Your task to perform on an android device: Search for "usb-c to usb-a" on target, select the first entry, and add it to the cart. Image 0: 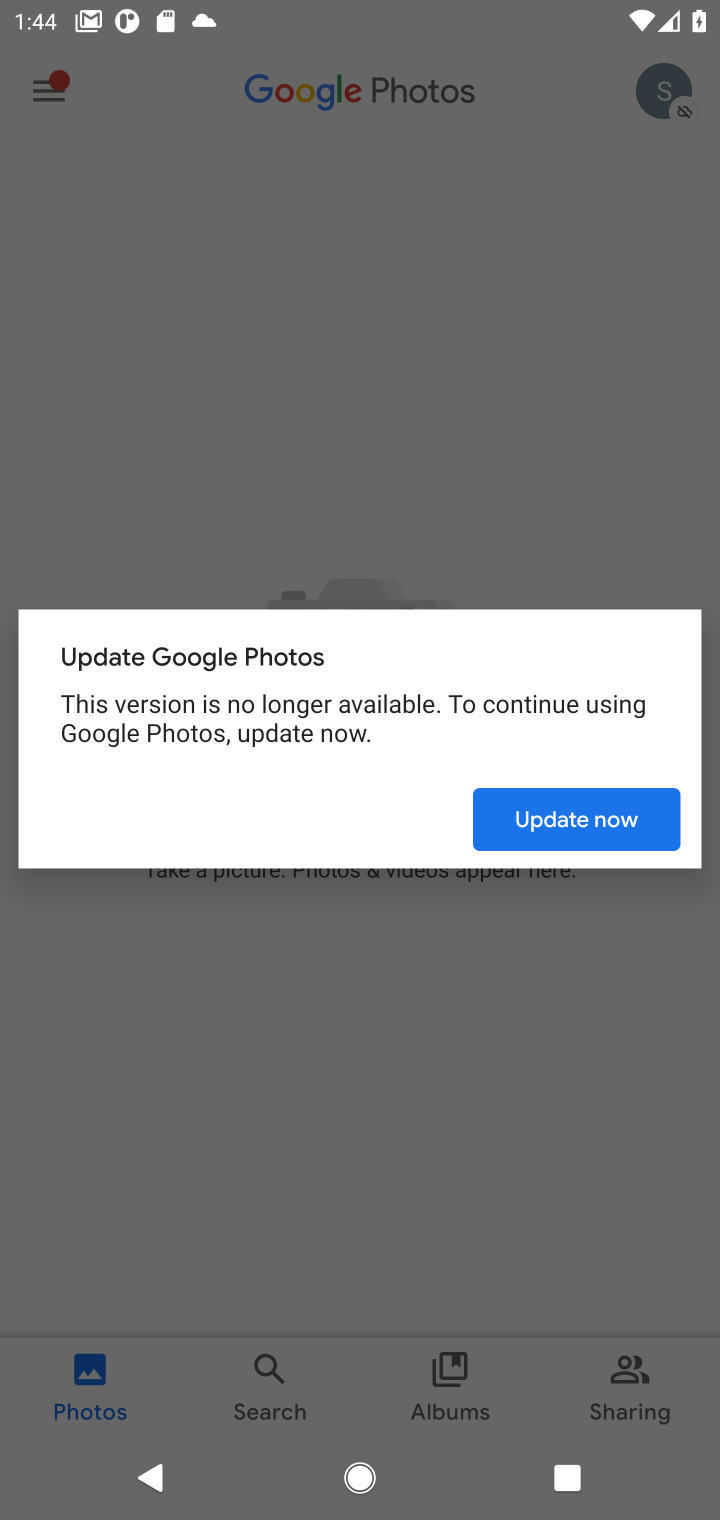
Step 0: press home button
Your task to perform on an android device: Search for "usb-c to usb-a" on target, select the first entry, and add it to the cart. Image 1: 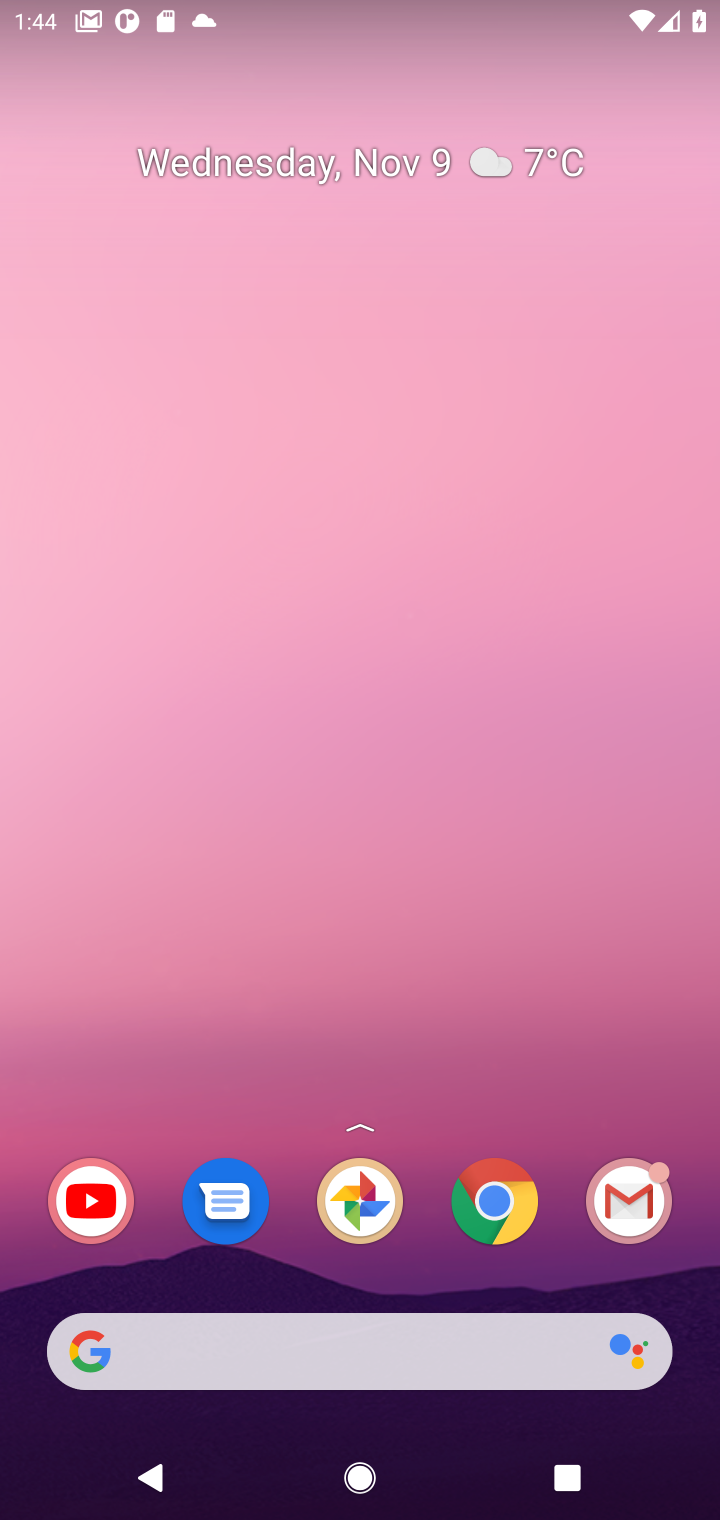
Step 1: click (354, 1340)
Your task to perform on an android device: Search for "usb-c to usb-a" on target, select the first entry, and add it to the cart. Image 2: 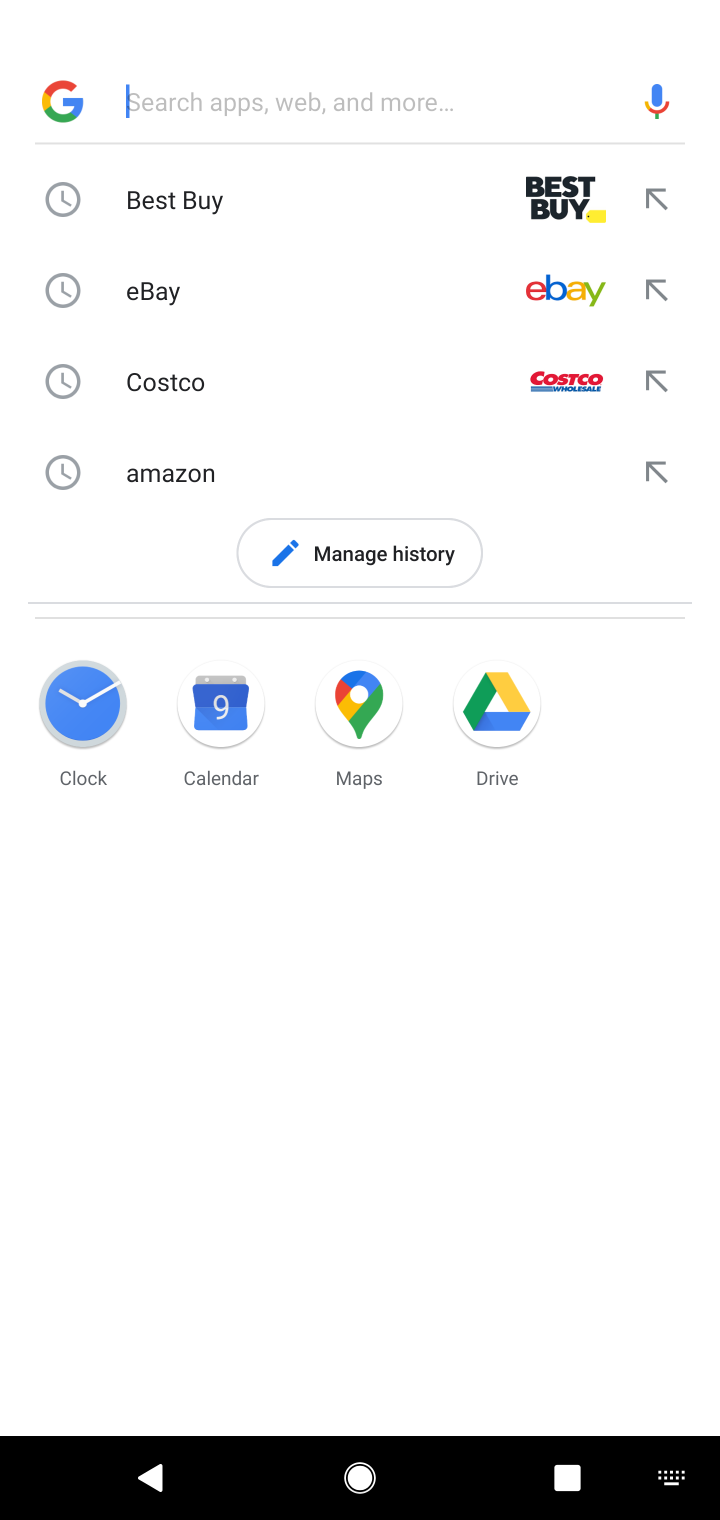
Step 2: type "target"
Your task to perform on an android device: Search for "usb-c to usb-a" on target, select the first entry, and add it to the cart. Image 3: 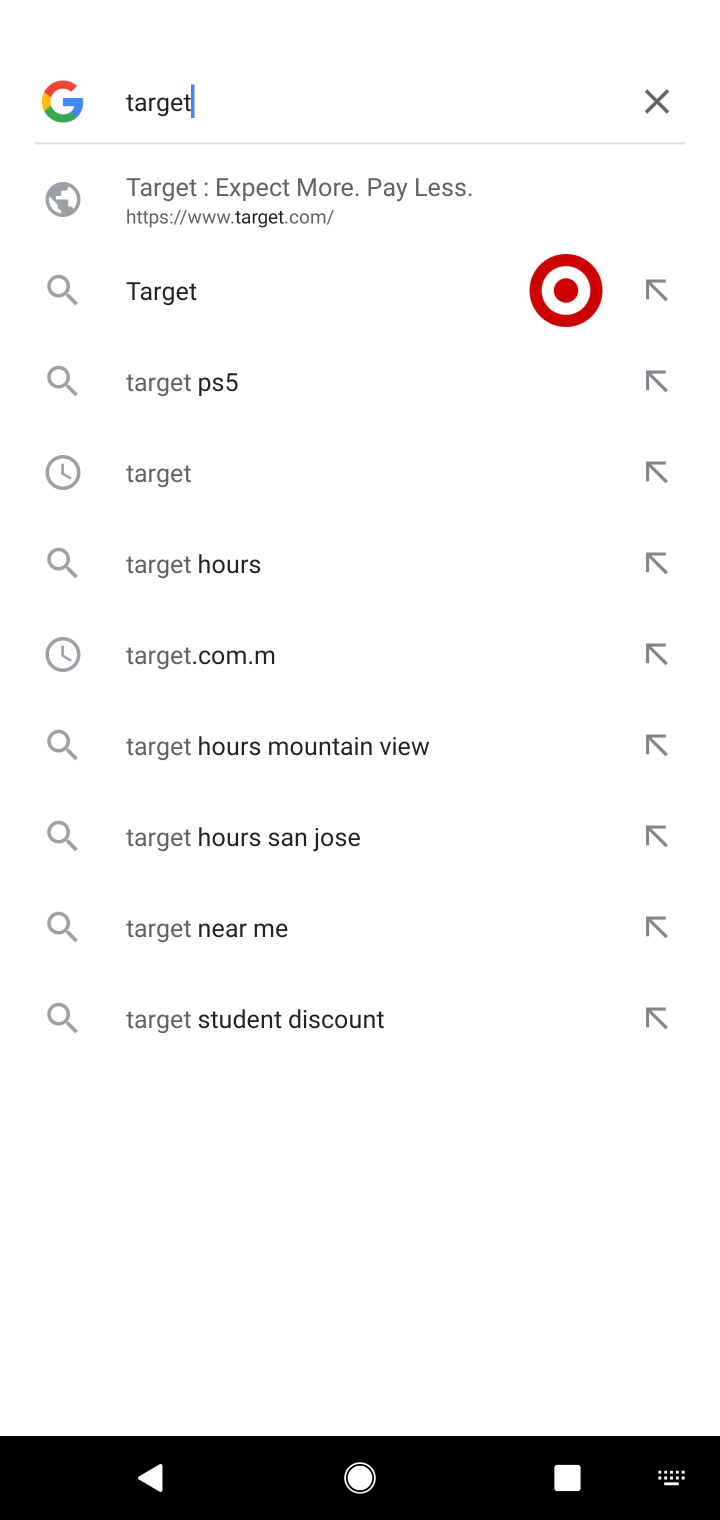
Step 3: click (382, 293)
Your task to perform on an android device: Search for "usb-c to usb-a" on target, select the first entry, and add it to the cart. Image 4: 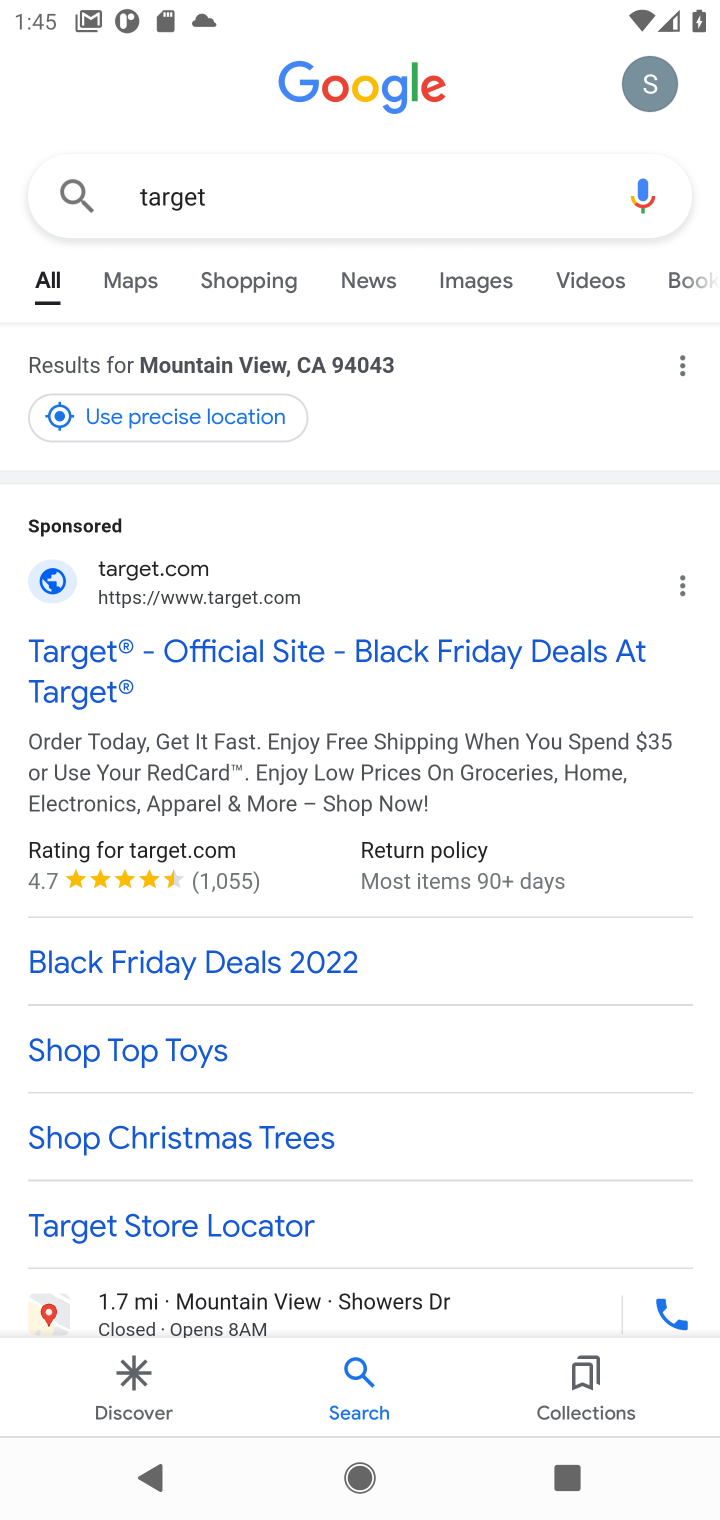
Step 4: click (155, 581)
Your task to perform on an android device: Search for "usb-c to usb-a" on target, select the first entry, and add it to the cart. Image 5: 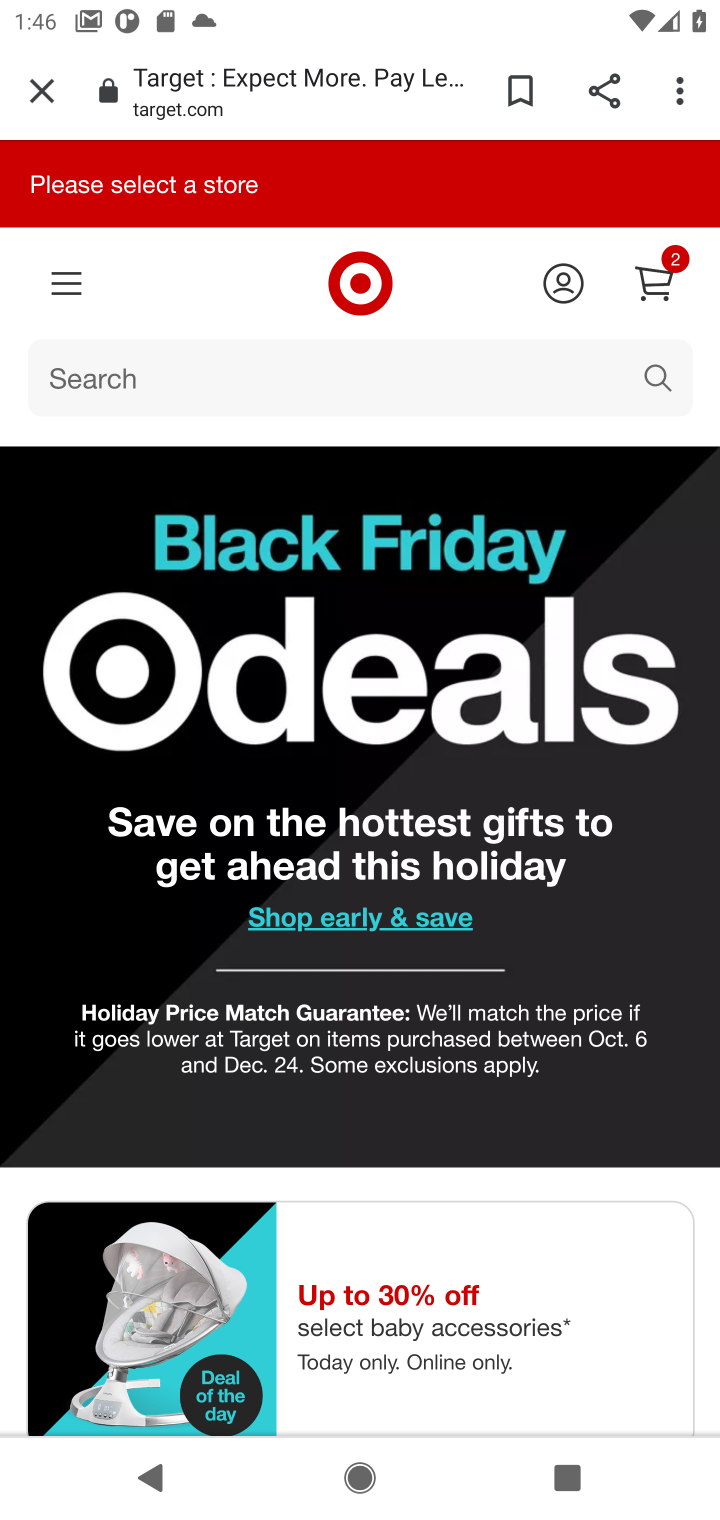
Step 5: click (233, 374)
Your task to perform on an android device: Search for "usb-c to usb-a" on target, select the first entry, and add it to the cart. Image 6: 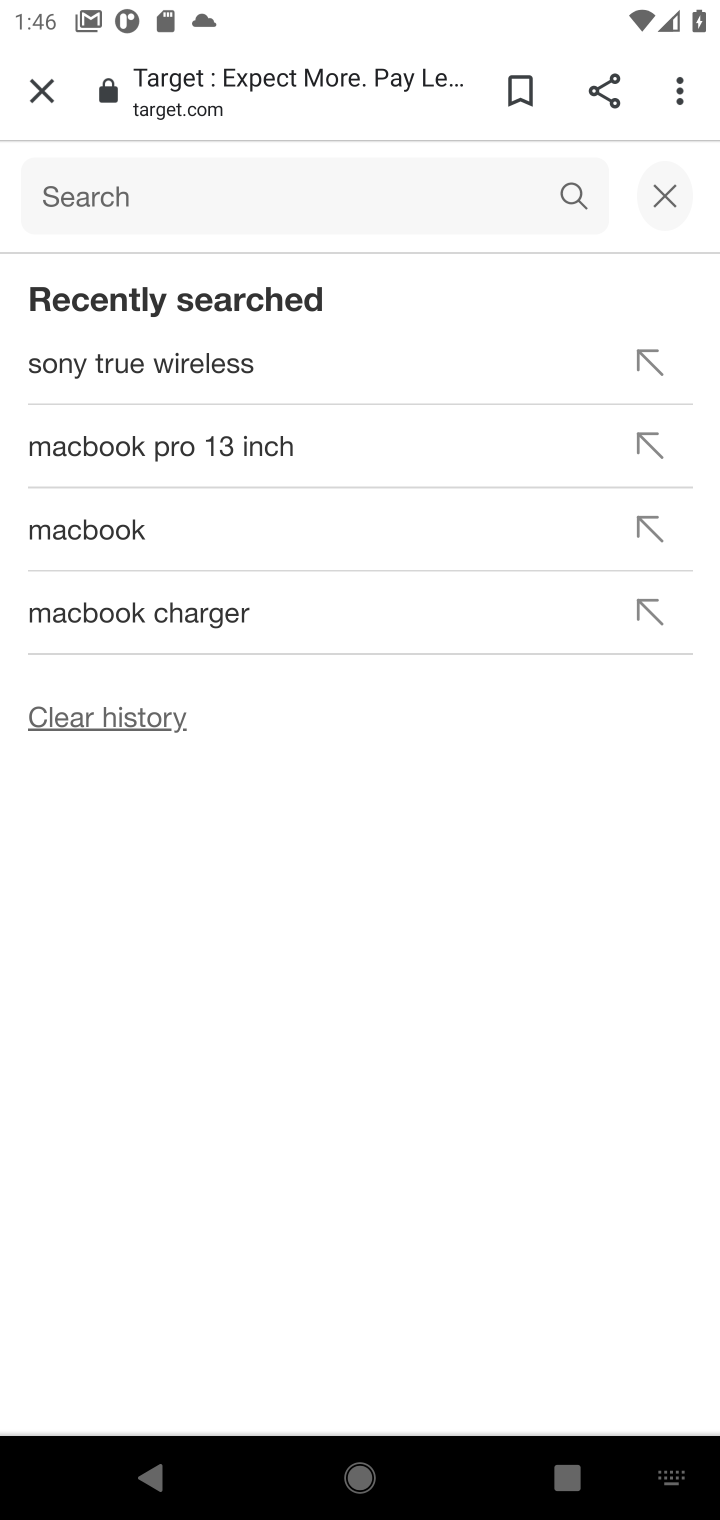
Step 6: type "usb-c to usb-a"
Your task to perform on an android device: Search for "usb-c to usb-a" on target, select the first entry, and add it to the cart. Image 7: 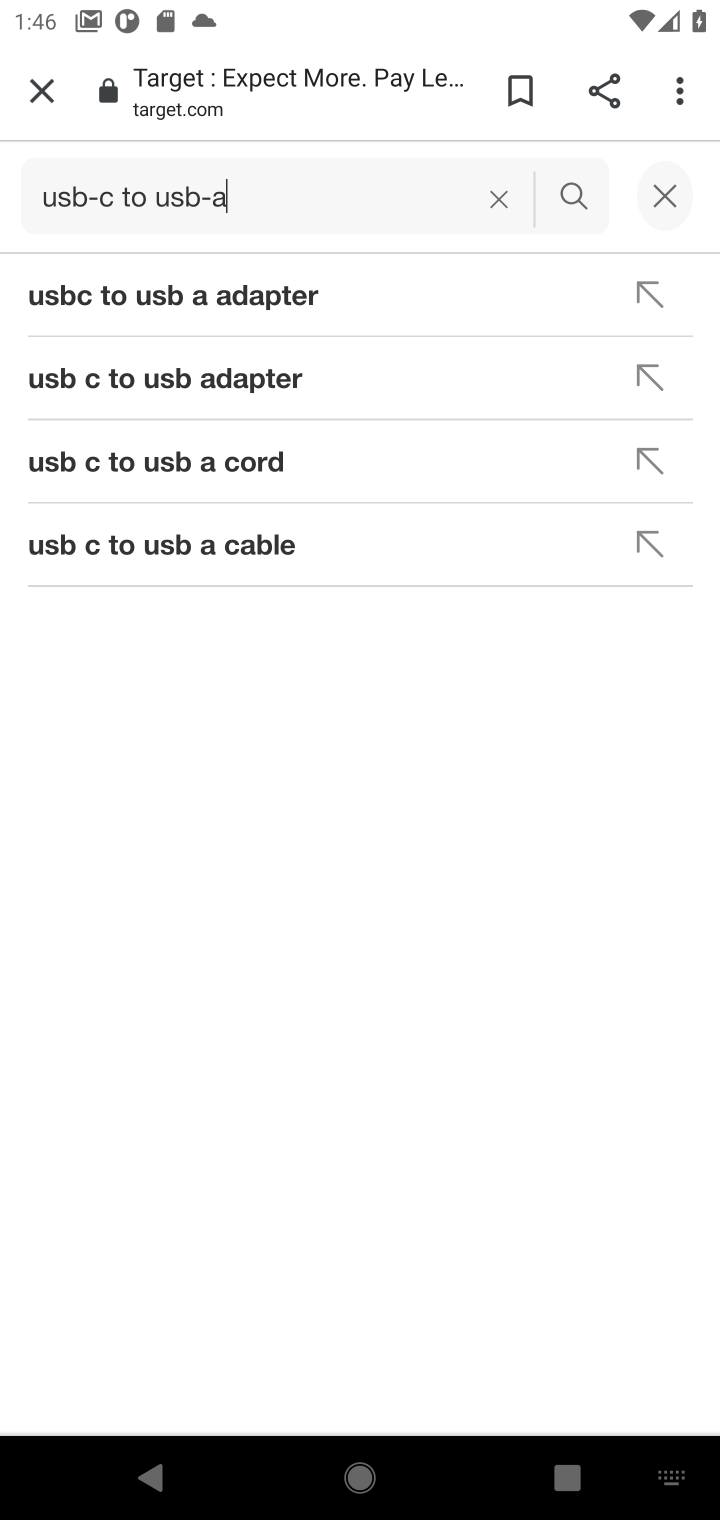
Step 7: click (186, 542)
Your task to perform on an android device: Search for "usb-c to usb-a" on target, select the first entry, and add it to the cart. Image 8: 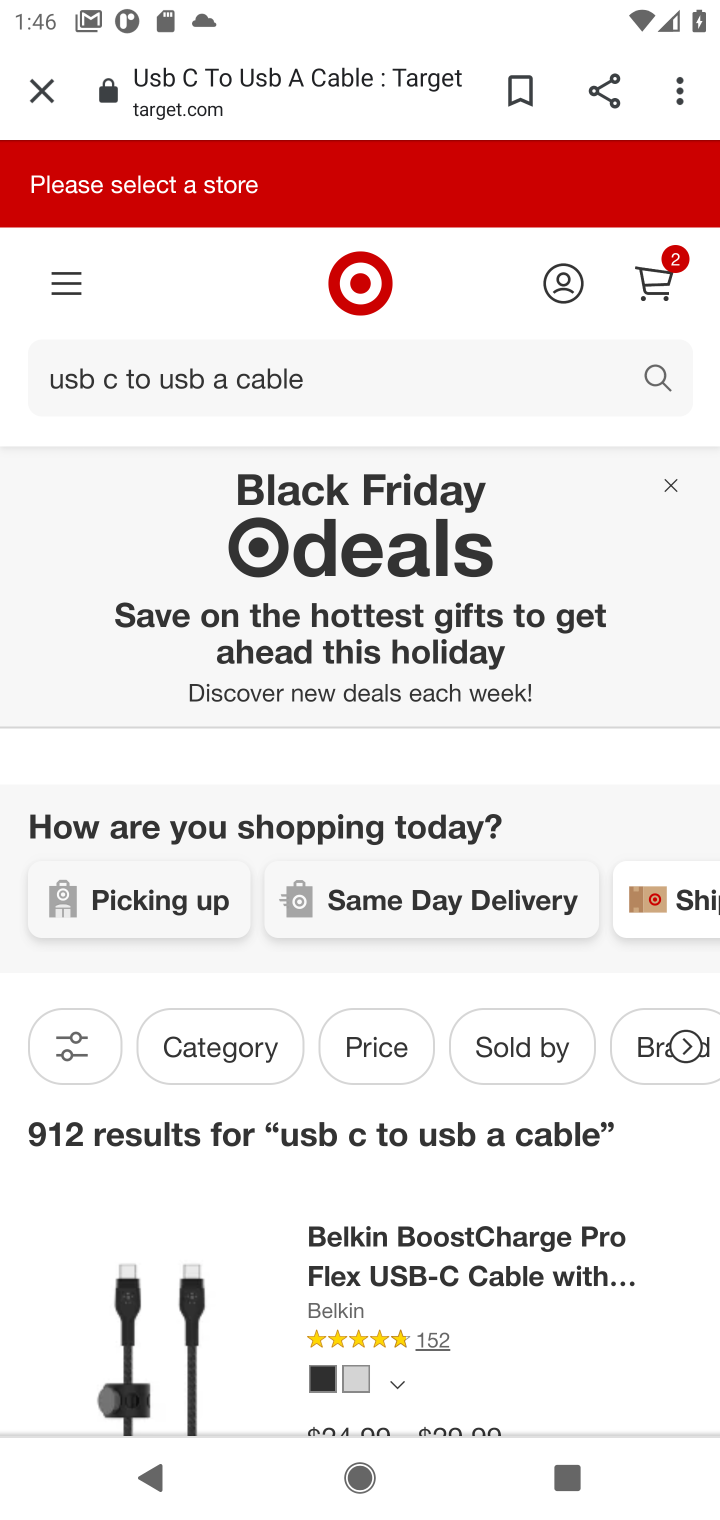
Step 8: drag from (467, 1197) to (414, 829)
Your task to perform on an android device: Search for "usb-c to usb-a" on target, select the first entry, and add it to the cart. Image 9: 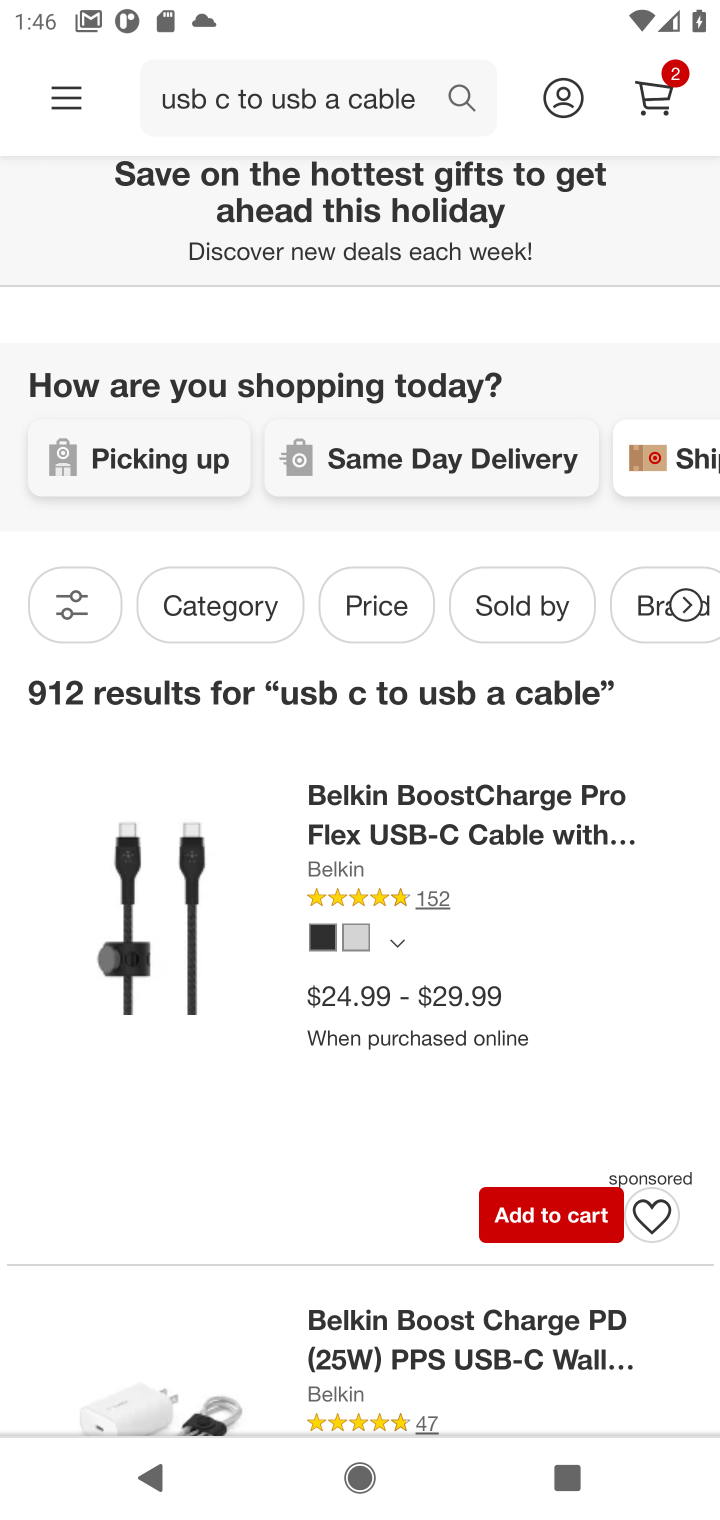
Step 9: click (536, 1217)
Your task to perform on an android device: Search for "usb-c to usb-a" on target, select the first entry, and add it to the cart. Image 10: 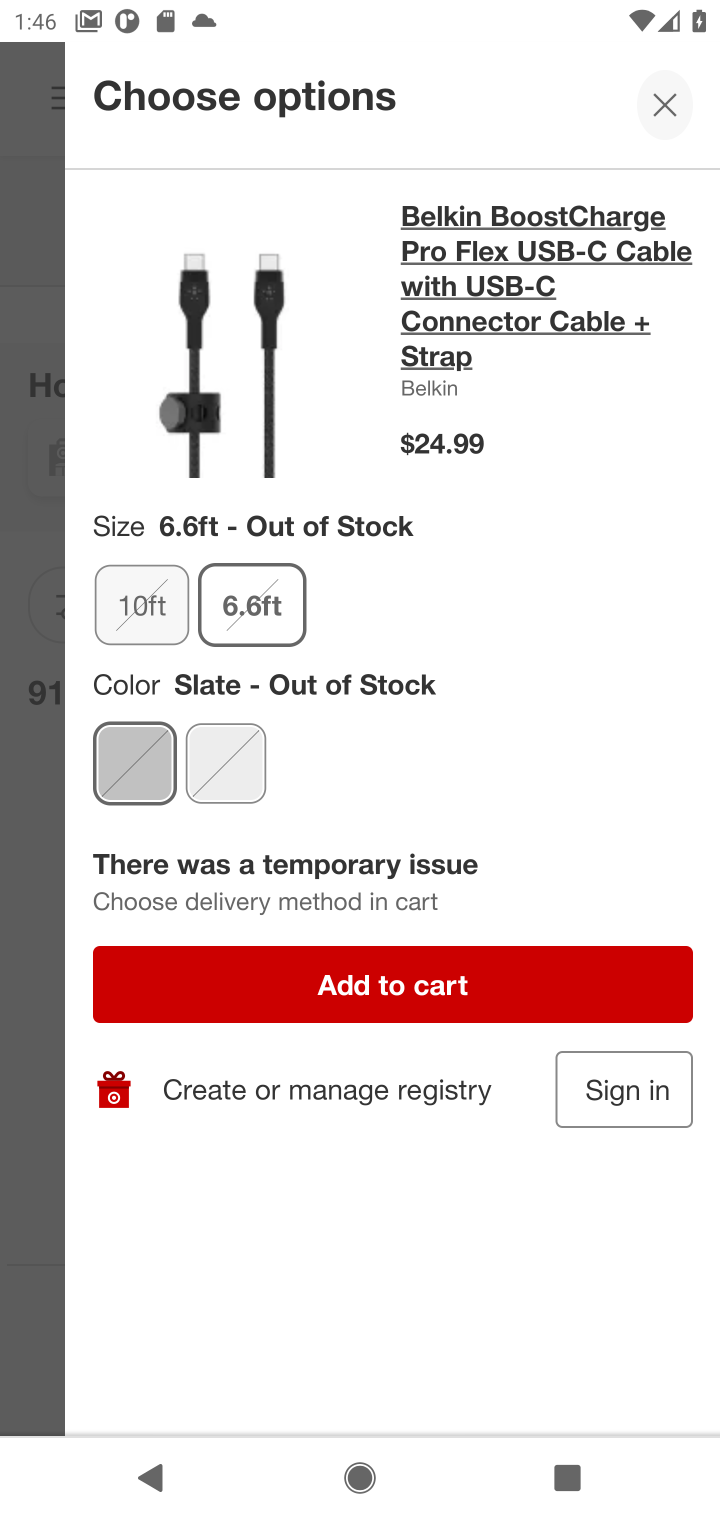
Step 10: click (401, 983)
Your task to perform on an android device: Search for "usb-c to usb-a" on target, select the first entry, and add it to the cart. Image 11: 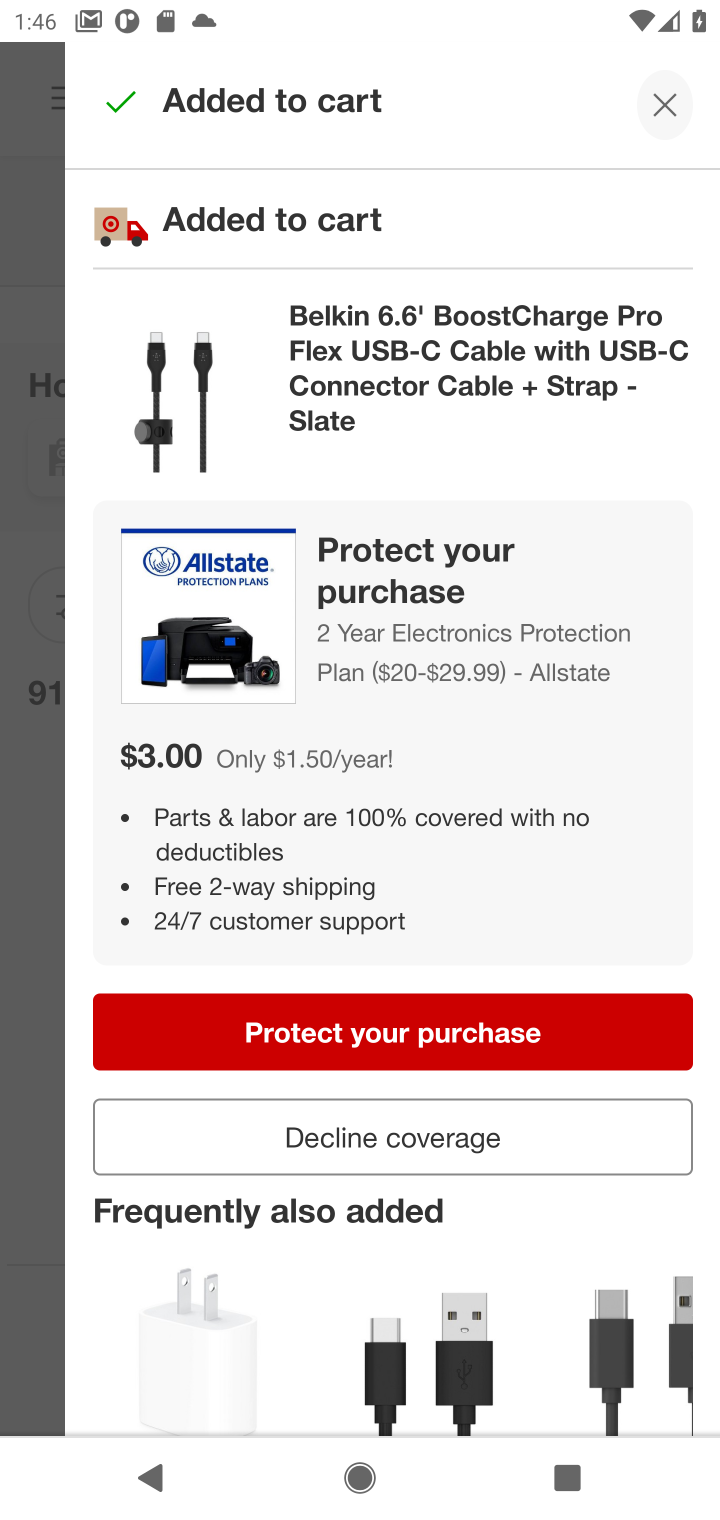
Step 11: click (373, 1134)
Your task to perform on an android device: Search for "usb-c to usb-a" on target, select the first entry, and add it to the cart. Image 12: 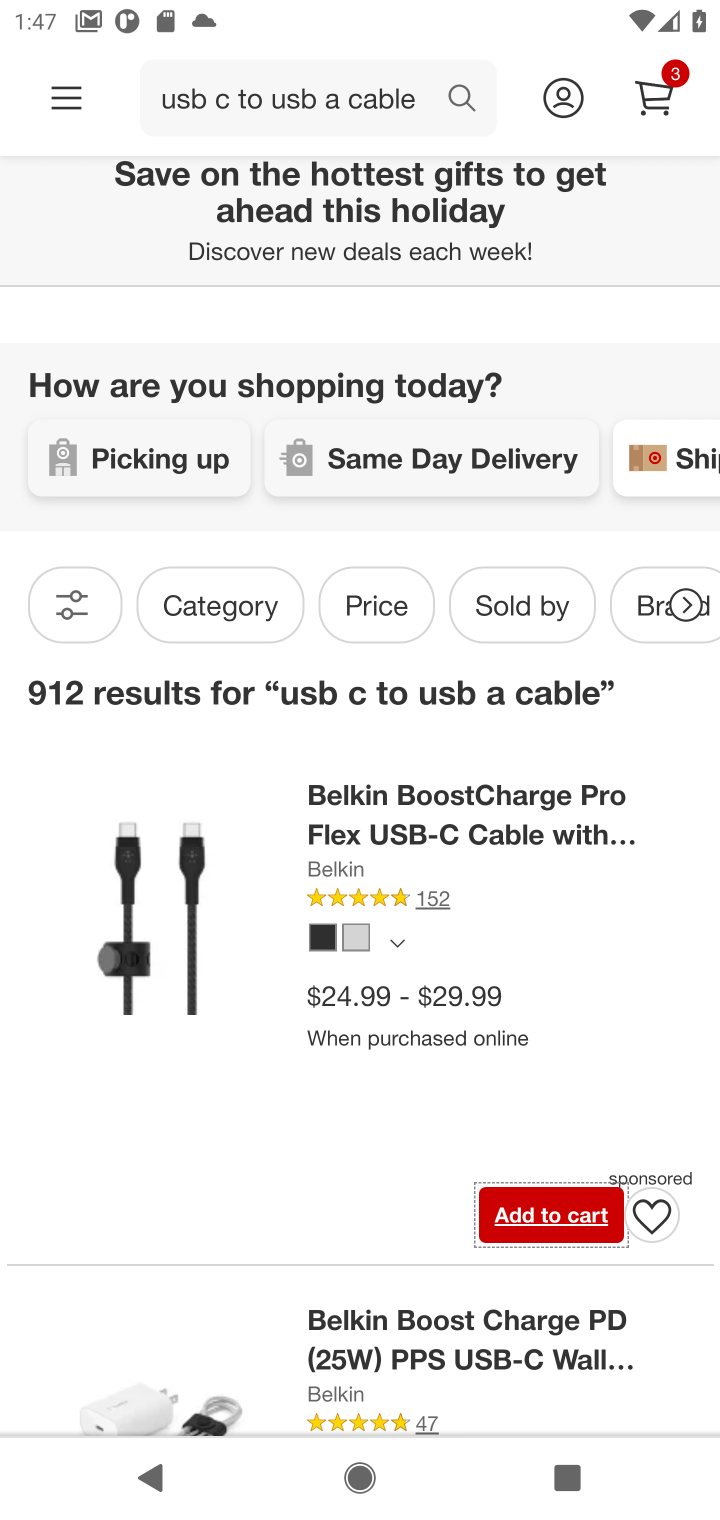
Step 12: task complete